Your task to perform on an android device: add a contact in the contacts app Image 0: 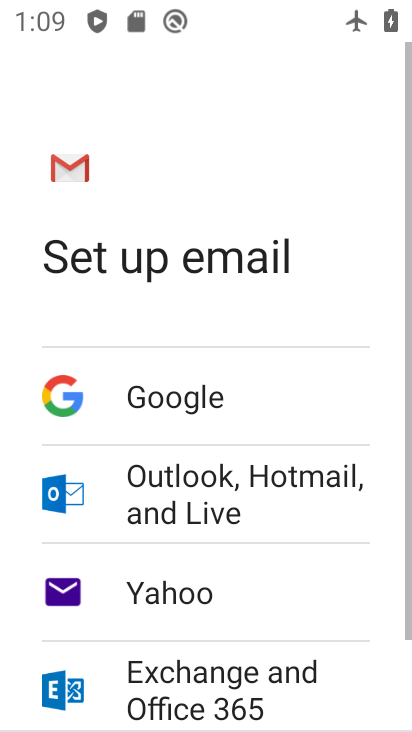
Step 0: press home button
Your task to perform on an android device: add a contact in the contacts app Image 1: 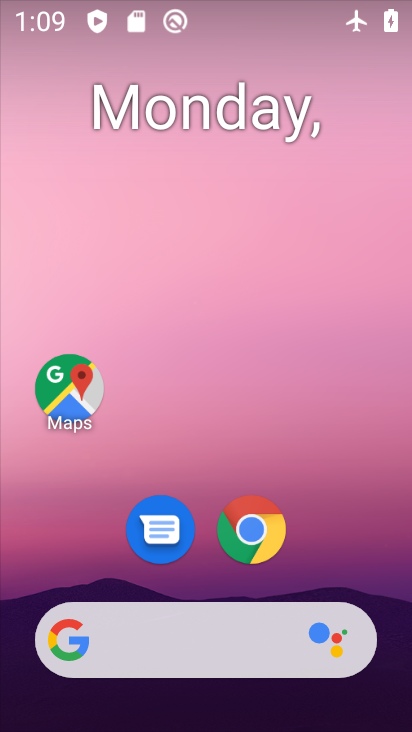
Step 1: drag from (341, 568) to (410, 4)
Your task to perform on an android device: add a contact in the contacts app Image 2: 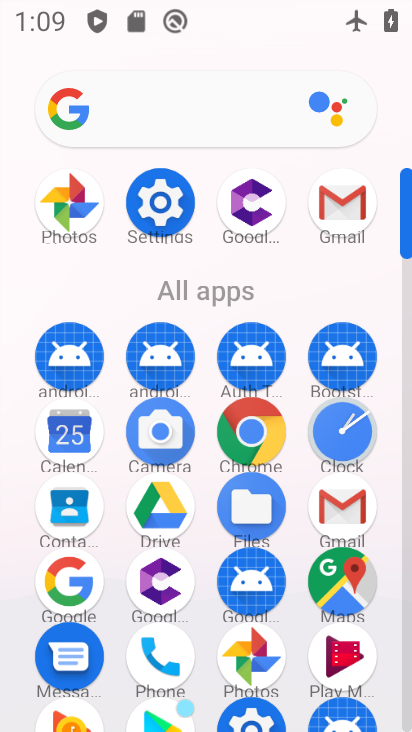
Step 2: click (172, 669)
Your task to perform on an android device: add a contact in the contacts app Image 3: 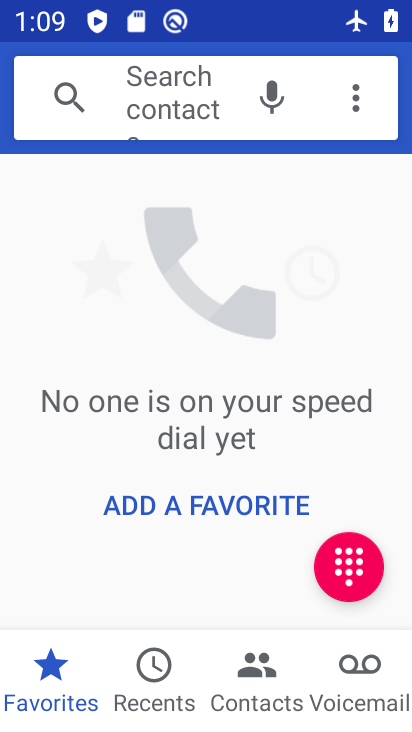
Step 3: click (254, 661)
Your task to perform on an android device: add a contact in the contacts app Image 4: 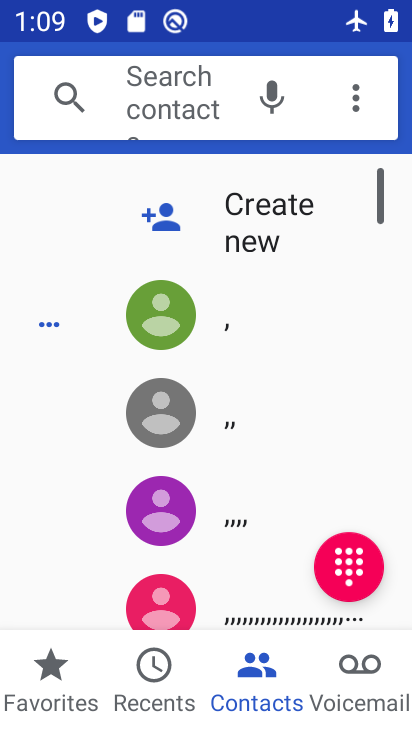
Step 4: drag from (319, 430) to (375, 154)
Your task to perform on an android device: add a contact in the contacts app Image 5: 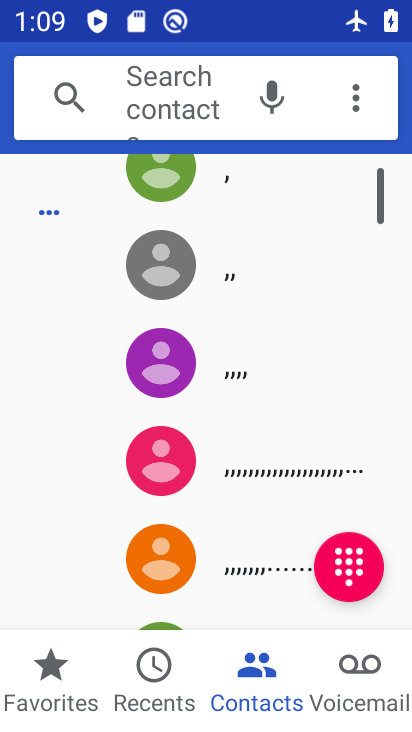
Step 5: drag from (301, 420) to (348, 155)
Your task to perform on an android device: add a contact in the contacts app Image 6: 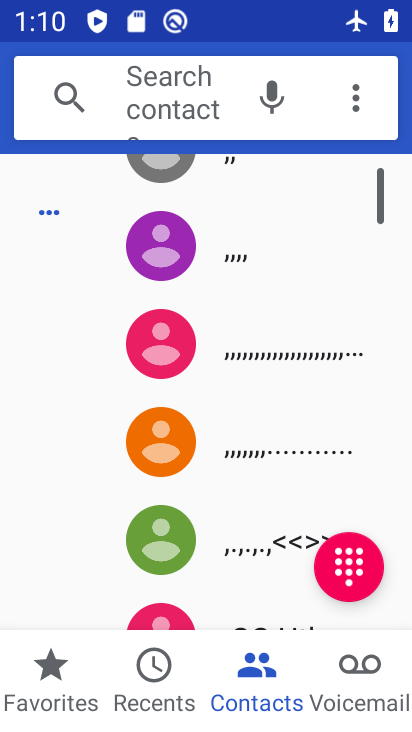
Step 6: drag from (232, 480) to (276, 188)
Your task to perform on an android device: add a contact in the contacts app Image 7: 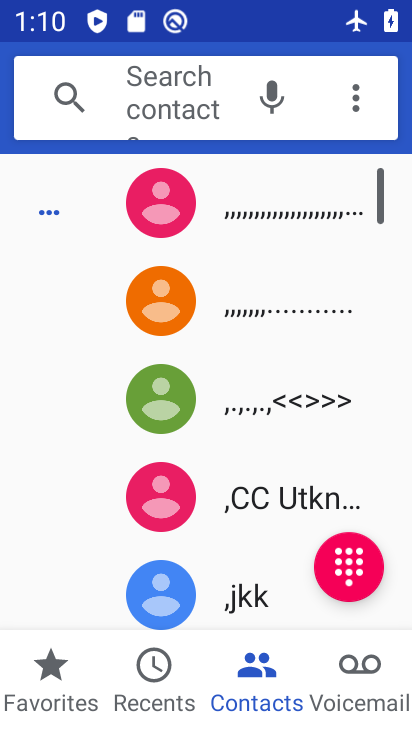
Step 7: drag from (270, 334) to (321, 592)
Your task to perform on an android device: add a contact in the contacts app Image 8: 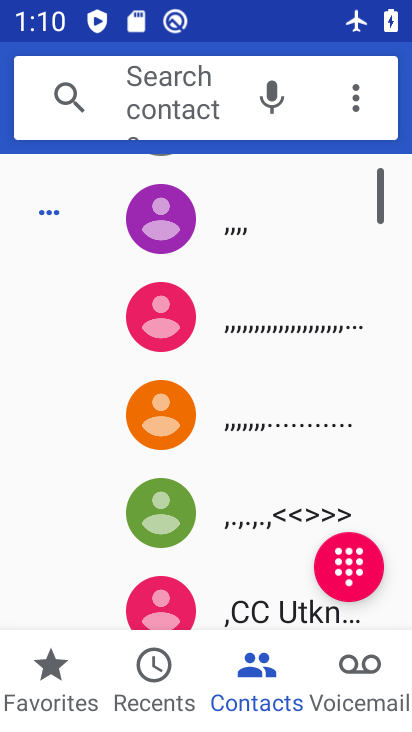
Step 8: drag from (275, 341) to (260, 530)
Your task to perform on an android device: add a contact in the contacts app Image 9: 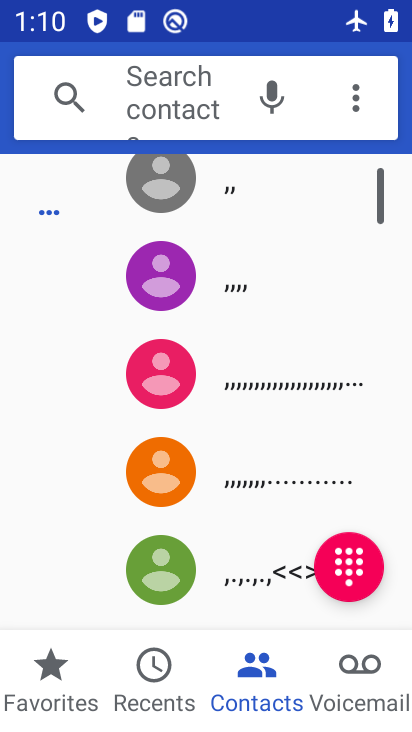
Step 9: drag from (280, 214) to (259, 532)
Your task to perform on an android device: add a contact in the contacts app Image 10: 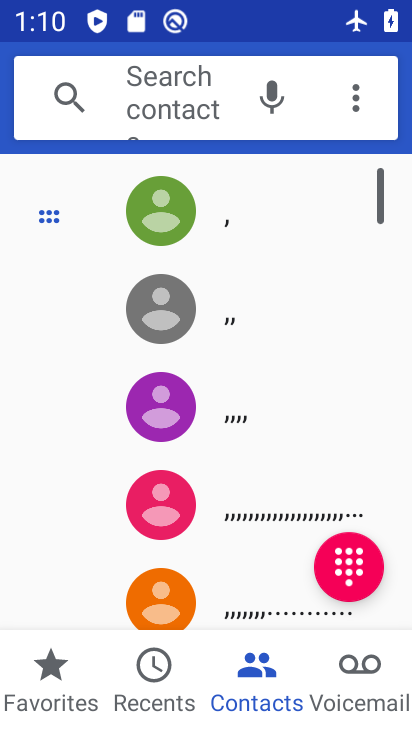
Step 10: drag from (259, 316) to (242, 526)
Your task to perform on an android device: add a contact in the contacts app Image 11: 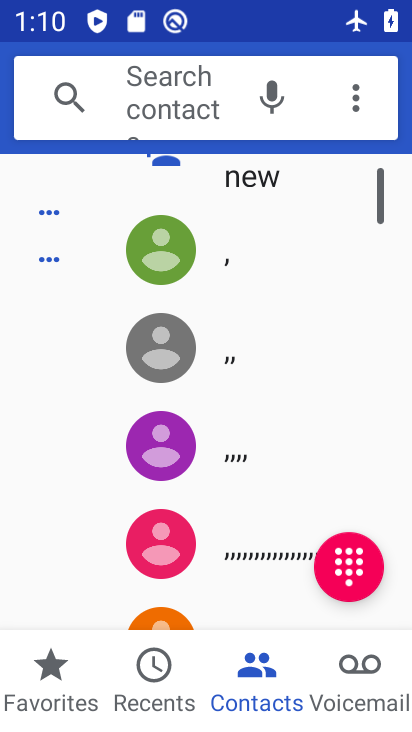
Step 11: drag from (242, 256) to (219, 544)
Your task to perform on an android device: add a contact in the contacts app Image 12: 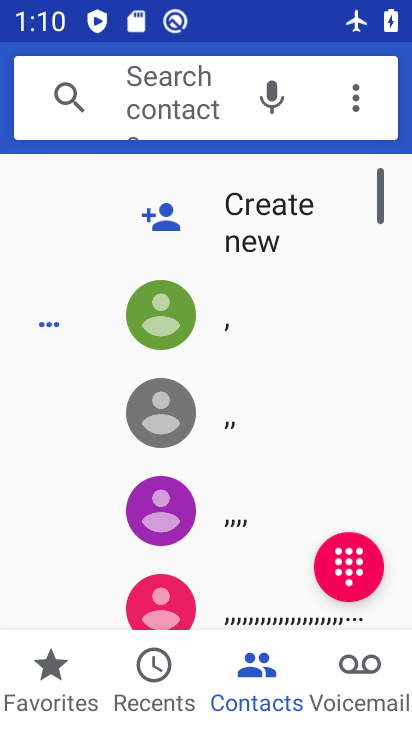
Step 12: drag from (258, 210) to (260, 544)
Your task to perform on an android device: add a contact in the contacts app Image 13: 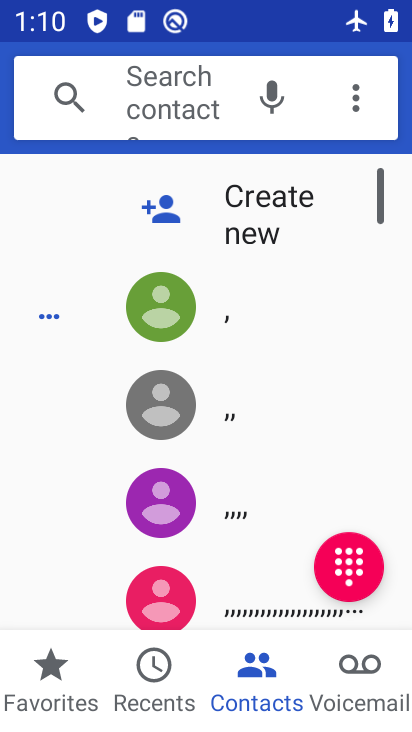
Step 13: click (246, 216)
Your task to perform on an android device: add a contact in the contacts app Image 14: 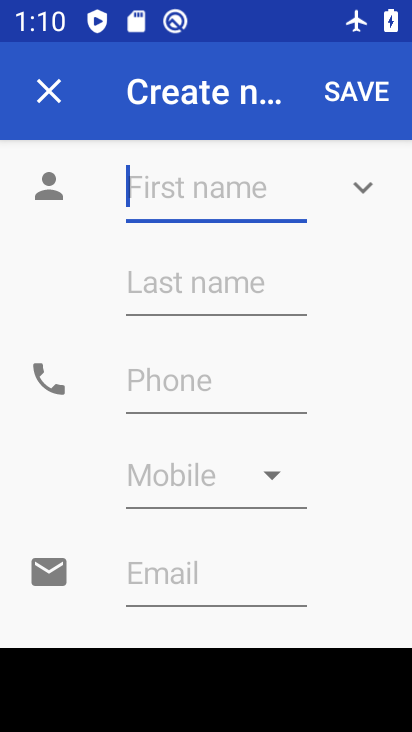
Step 14: type "tarun"
Your task to perform on an android device: add a contact in the contacts app Image 15: 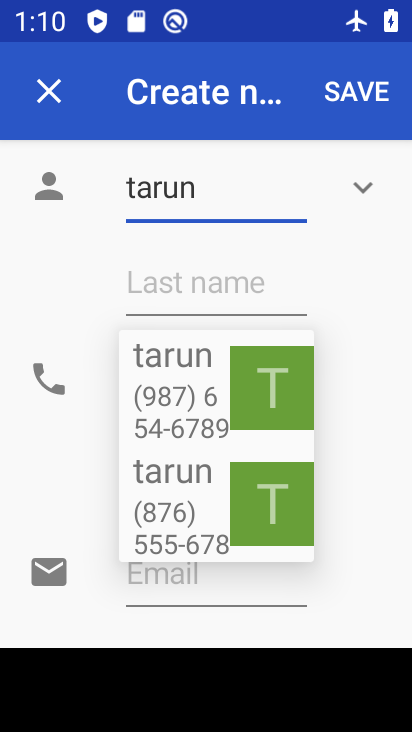
Step 15: click (360, 347)
Your task to perform on an android device: add a contact in the contacts app Image 16: 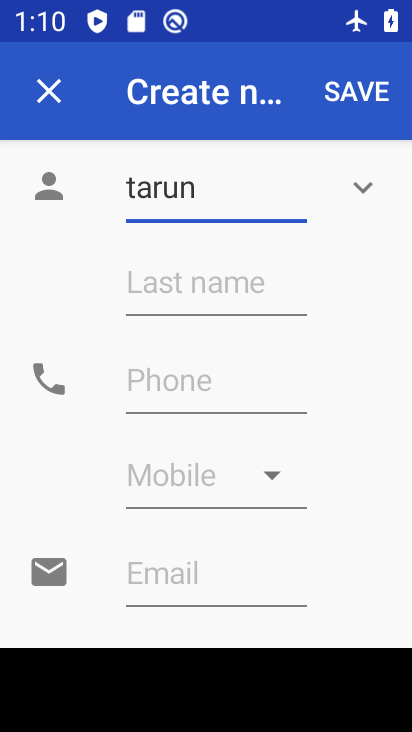
Step 16: click (192, 376)
Your task to perform on an android device: add a contact in the contacts app Image 17: 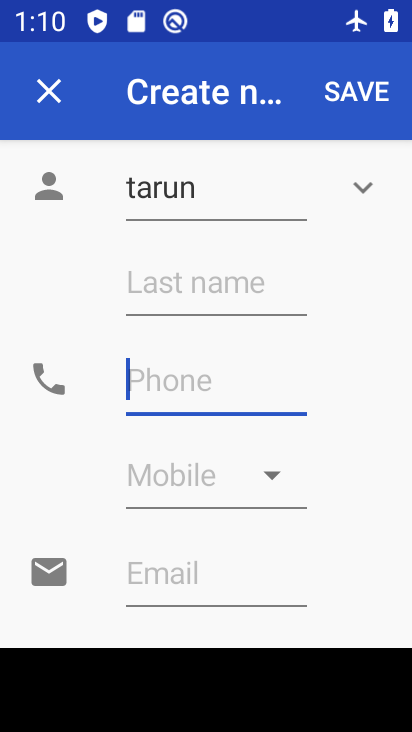
Step 17: type "64488844"
Your task to perform on an android device: add a contact in the contacts app Image 18: 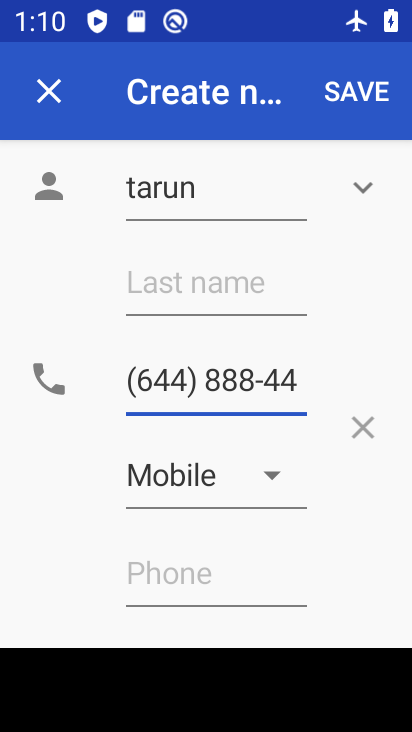
Step 18: click (360, 93)
Your task to perform on an android device: add a contact in the contacts app Image 19: 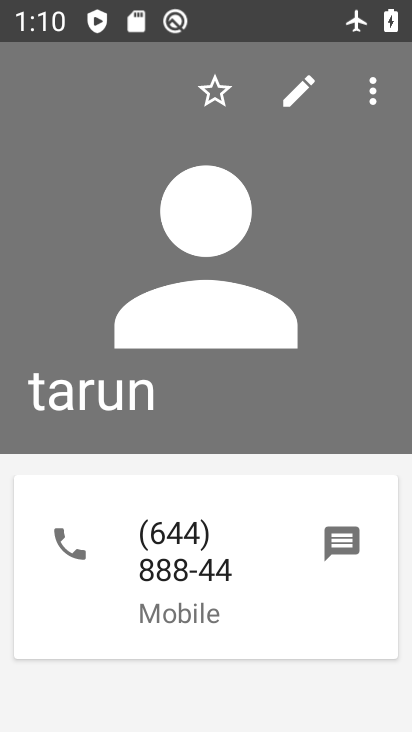
Step 19: task complete